Your task to perform on an android device: turn on javascript in the chrome app Image 0: 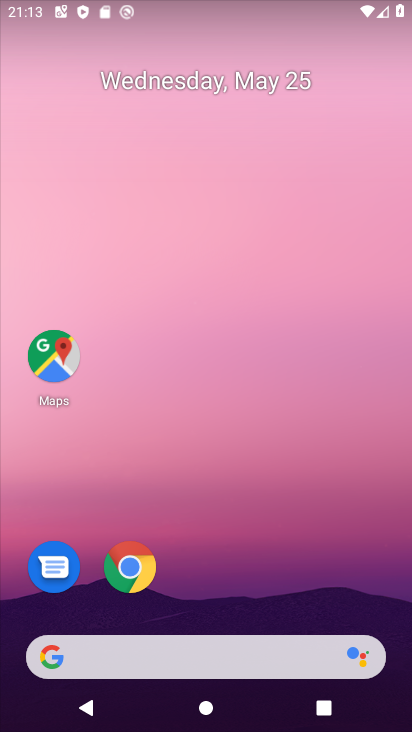
Step 0: click (136, 555)
Your task to perform on an android device: turn on javascript in the chrome app Image 1: 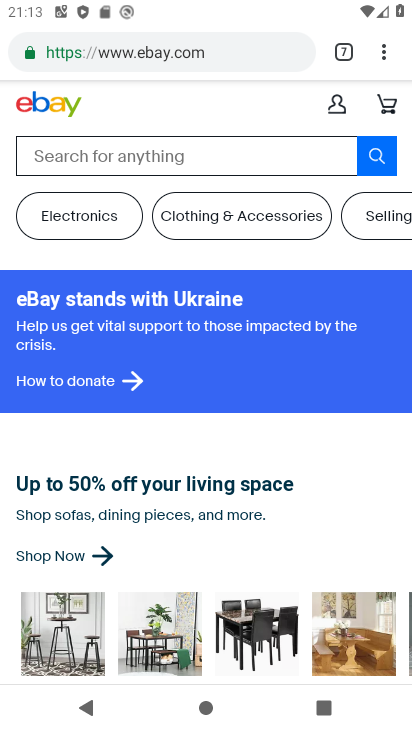
Step 1: click (381, 51)
Your task to perform on an android device: turn on javascript in the chrome app Image 2: 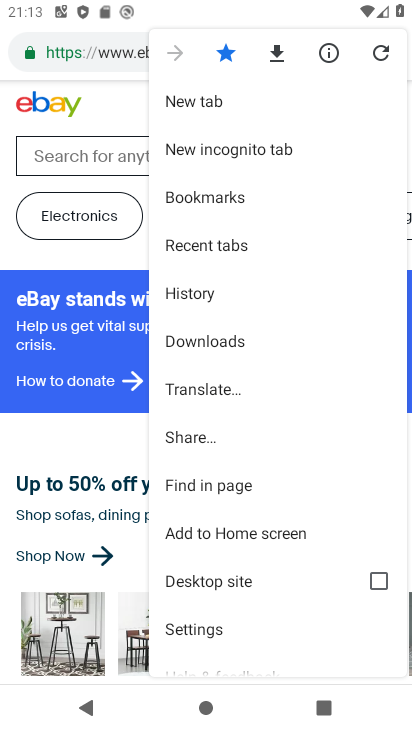
Step 2: click (235, 621)
Your task to perform on an android device: turn on javascript in the chrome app Image 3: 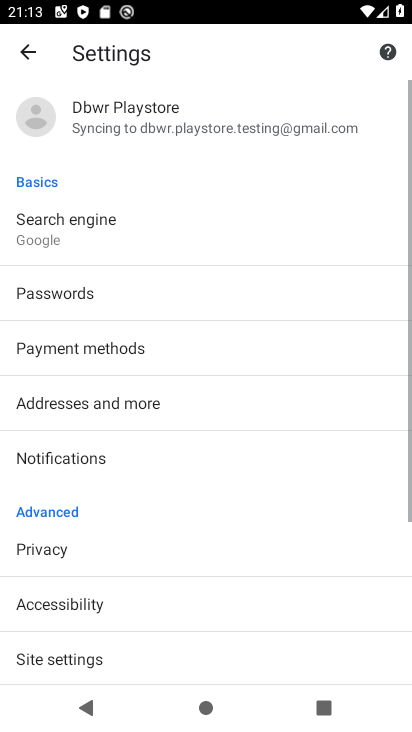
Step 3: click (207, 659)
Your task to perform on an android device: turn on javascript in the chrome app Image 4: 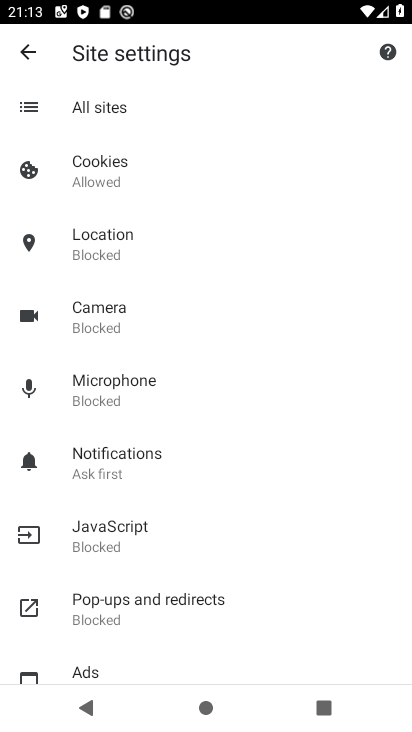
Step 4: click (186, 539)
Your task to perform on an android device: turn on javascript in the chrome app Image 5: 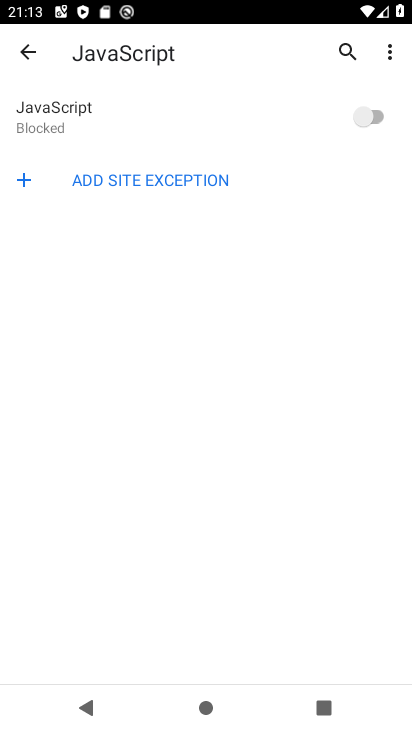
Step 5: click (357, 115)
Your task to perform on an android device: turn on javascript in the chrome app Image 6: 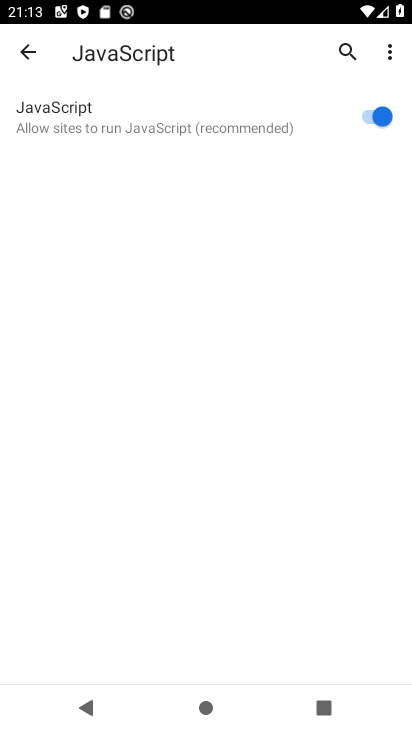
Step 6: task complete